Your task to perform on an android device: change your default location settings in chrome Image 0: 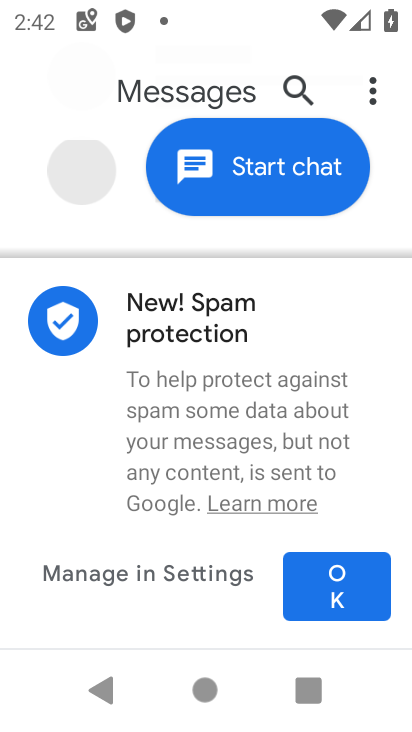
Step 0: drag from (255, 632) to (311, 284)
Your task to perform on an android device: change your default location settings in chrome Image 1: 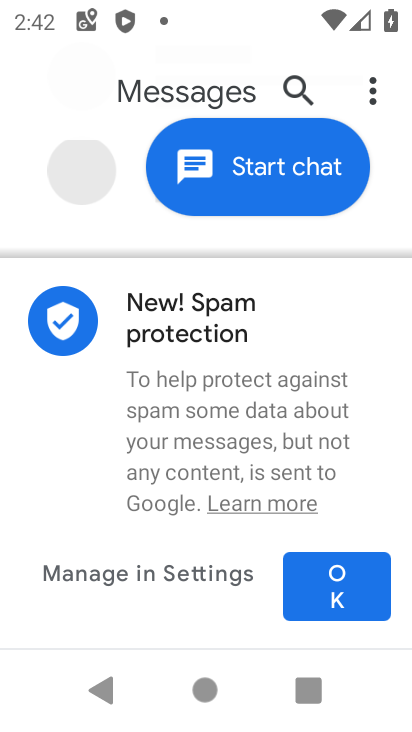
Step 1: press home button
Your task to perform on an android device: change your default location settings in chrome Image 2: 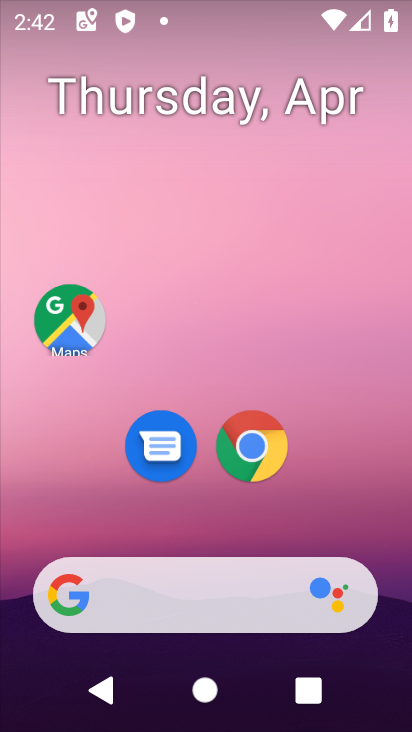
Step 2: drag from (306, 639) to (332, 208)
Your task to perform on an android device: change your default location settings in chrome Image 3: 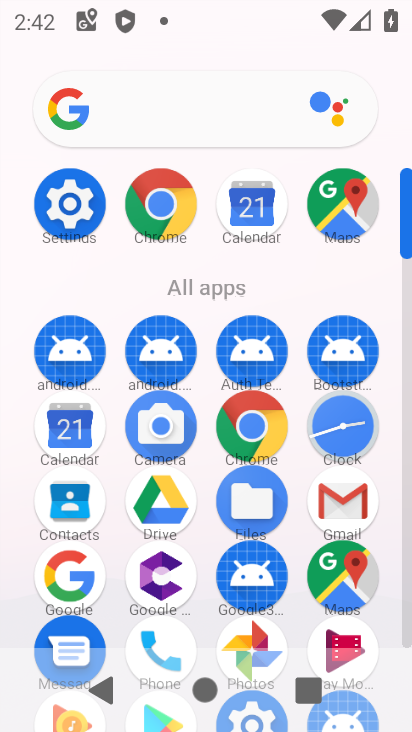
Step 3: click (153, 183)
Your task to perform on an android device: change your default location settings in chrome Image 4: 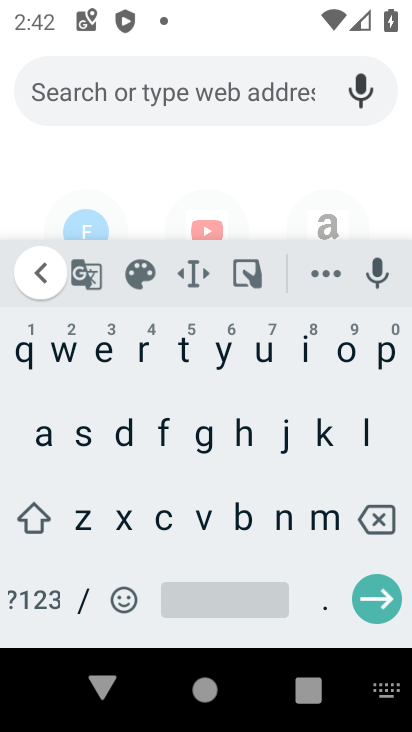
Step 4: press back button
Your task to perform on an android device: change your default location settings in chrome Image 5: 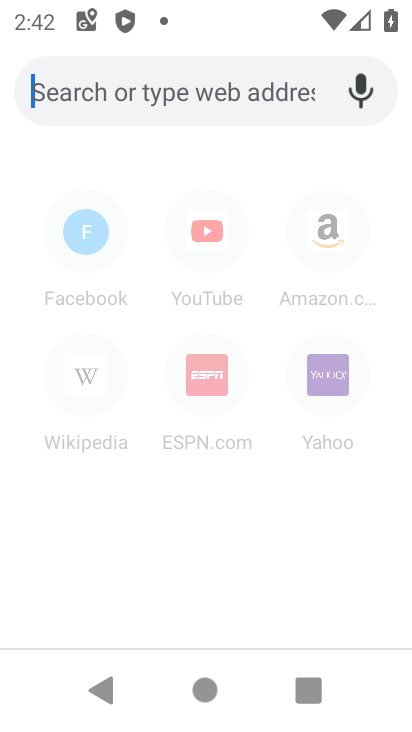
Step 5: press back button
Your task to perform on an android device: change your default location settings in chrome Image 6: 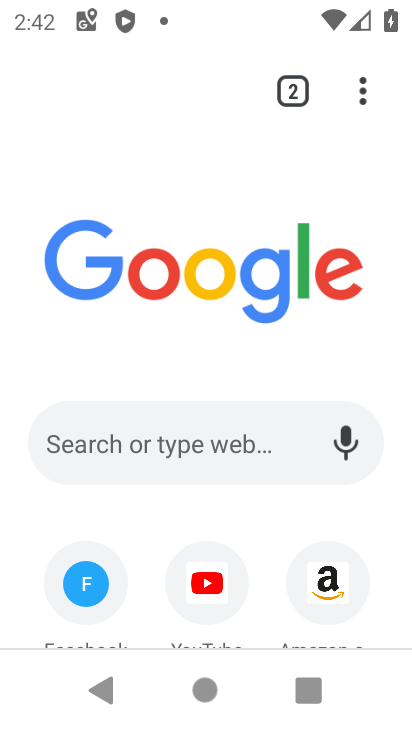
Step 6: click (371, 90)
Your task to perform on an android device: change your default location settings in chrome Image 7: 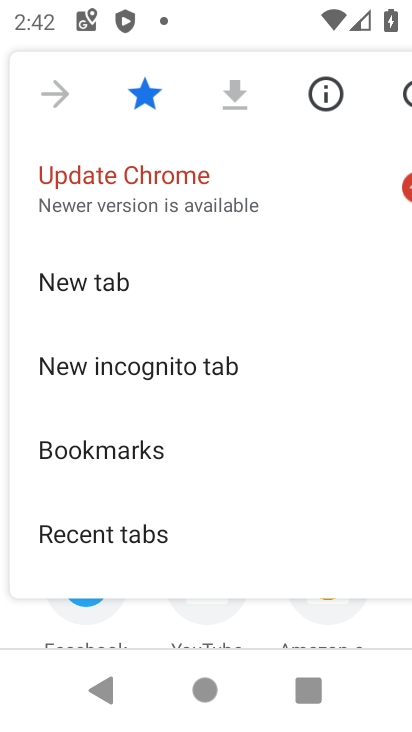
Step 7: drag from (140, 437) to (205, 201)
Your task to perform on an android device: change your default location settings in chrome Image 8: 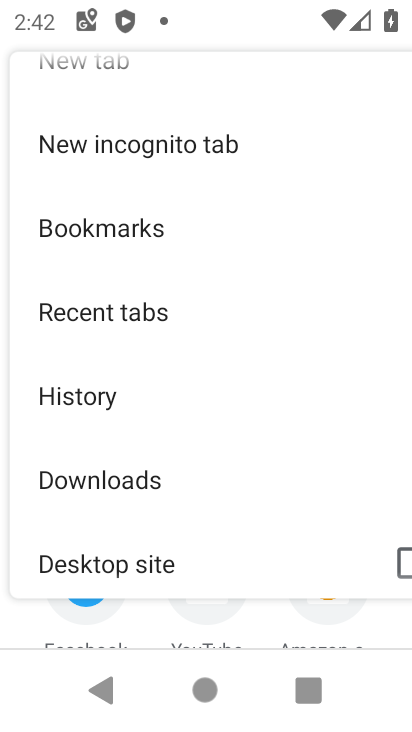
Step 8: drag from (104, 475) to (174, 321)
Your task to perform on an android device: change your default location settings in chrome Image 9: 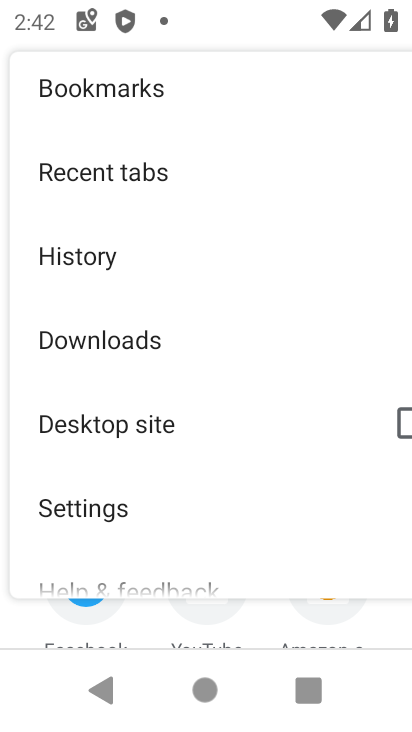
Step 9: click (41, 512)
Your task to perform on an android device: change your default location settings in chrome Image 10: 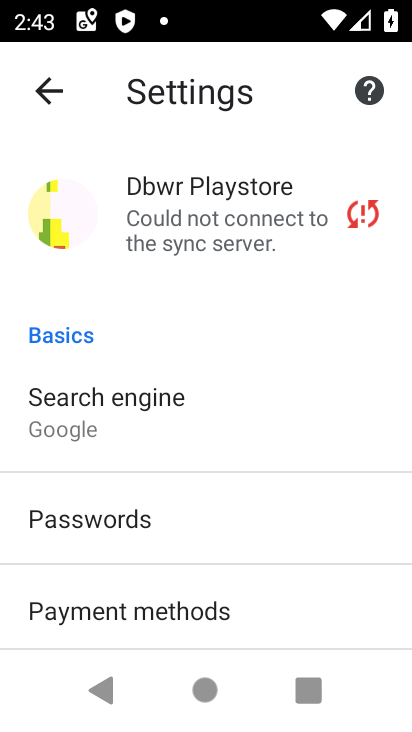
Step 10: drag from (140, 622) to (283, 219)
Your task to perform on an android device: change your default location settings in chrome Image 11: 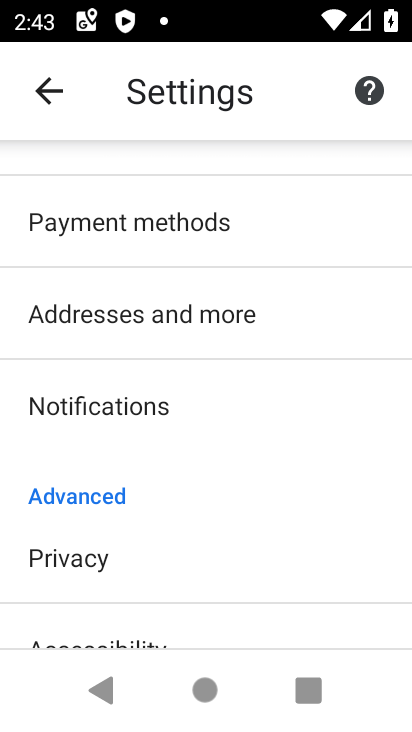
Step 11: drag from (127, 542) to (284, 234)
Your task to perform on an android device: change your default location settings in chrome Image 12: 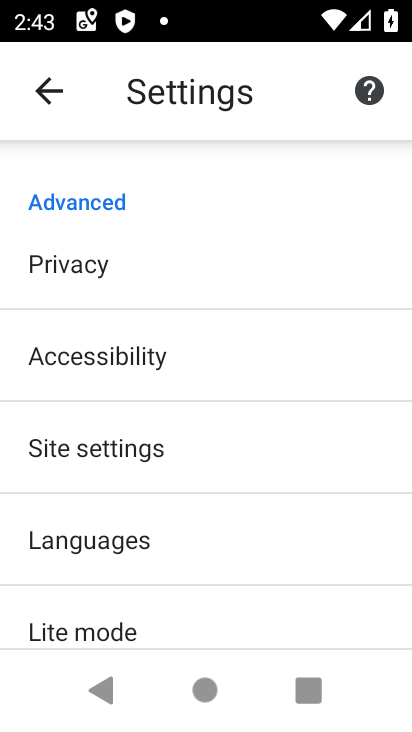
Step 12: click (118, 436)
Your task to perform on an android device: change your default location settings in chrome Image 13: 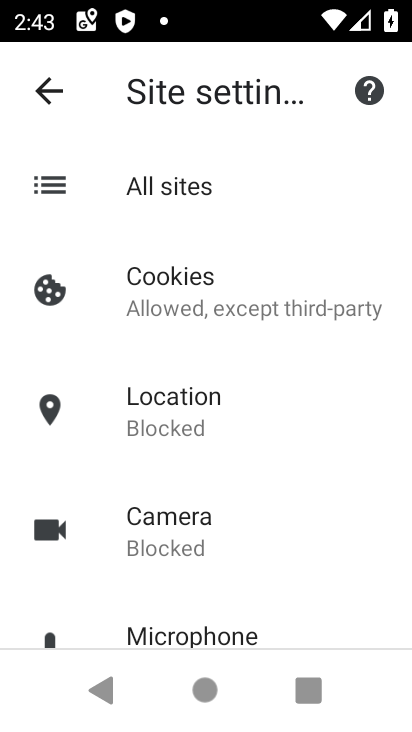
Step 13: click (118, 432)
Your task to perform on an android device: change your default location settings in chrome Image 14: 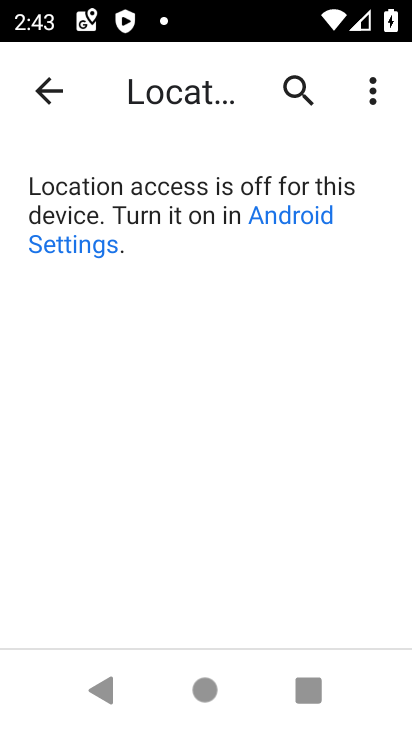
Step 14: task complete